Your task to perform on an android device: change text size in settings app Image 0: 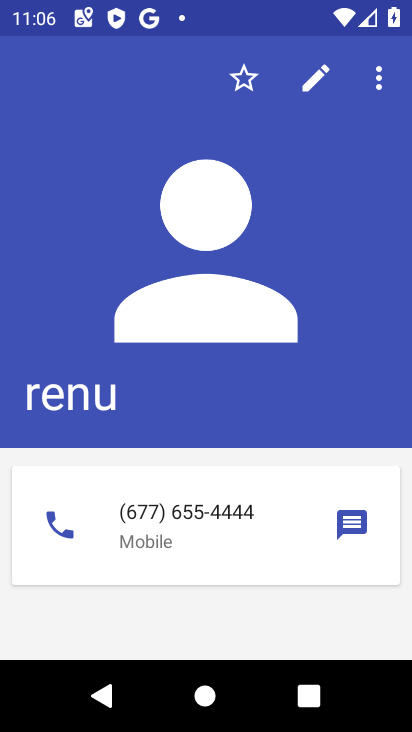
Step 0: press home button
Your task to perform on an android device: change text size in settings app Image 1: 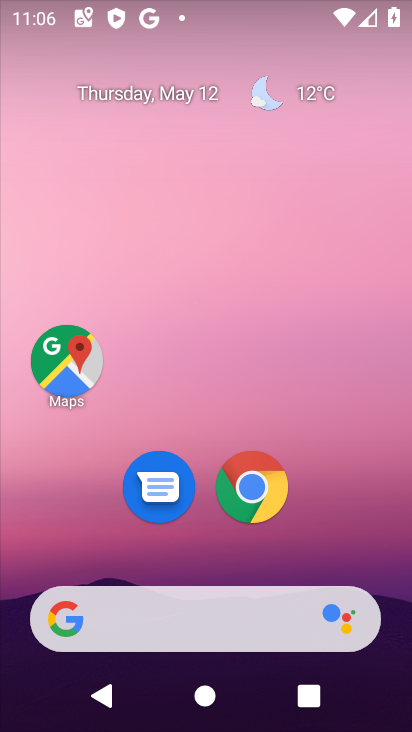
Step 1: drag from (389, 558) to (270, 27)
Your task to perform on an android device: change text size in settings app Image 2: 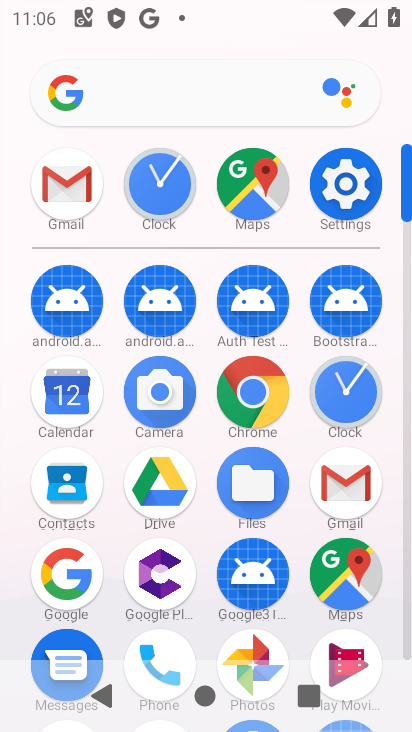
Step 2: click (352, 187)
Your task to perform on an android device: change text size in settings app Image 3: 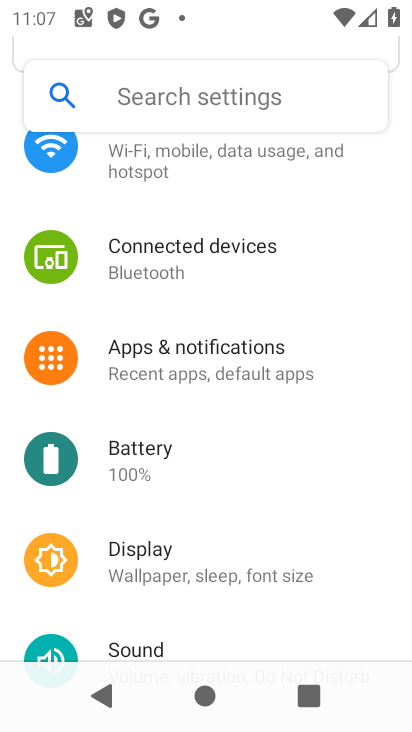
Step 3: click (132, 556)
Your task to perform on an android device: change text size in settings app Image 4: 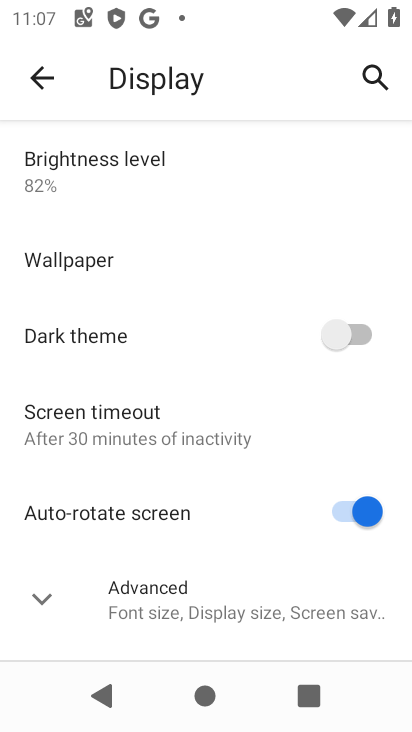
Step 4: drag from (132, 556) to (156, 156)
Your task to perform on an android device: change text size in settings app Image 5: 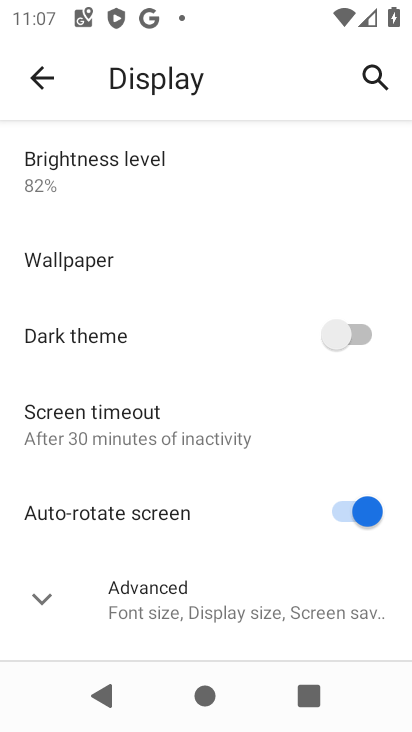
Step 5: click (40, 608)
Your task to perform on an android device: change text size in settings app Image 6: 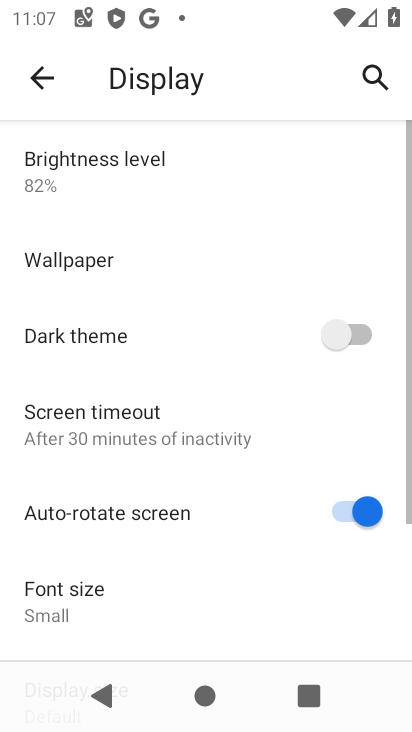
Step 6: drag from (112, 594) to (150, 318)
Your task to perform on an android device: change text size in settings app Image 7: 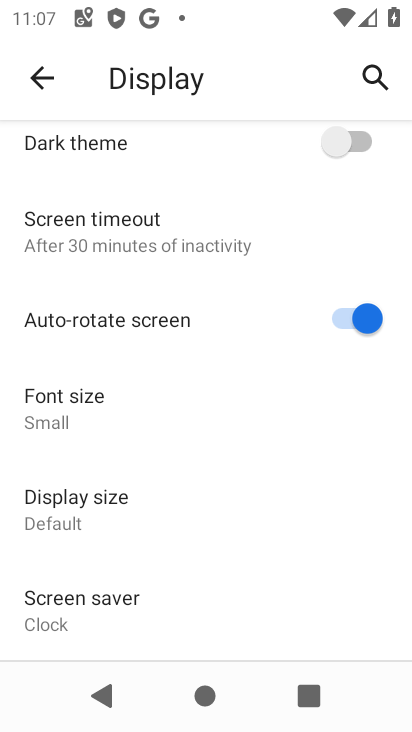
Step 7: click (60, 409)
Your task to perform on an android device: change text size in settings app Image 8: 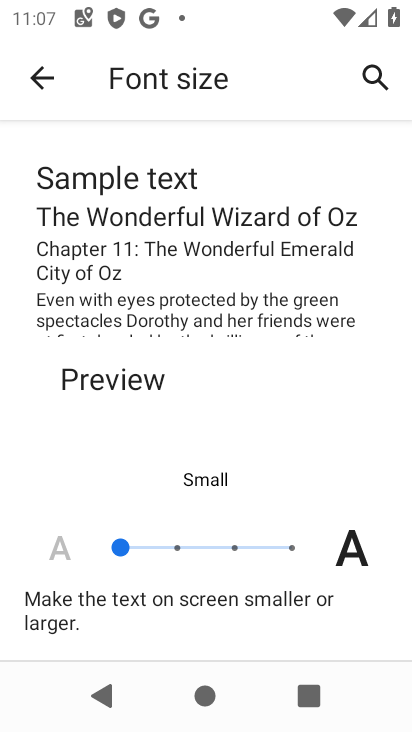
Step 8: click (172, 546)
Your task to perform on an android device: change text size in settings app Image 9: 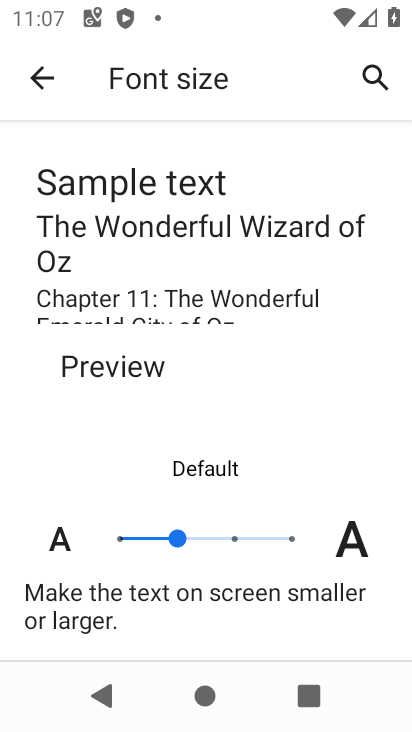
Step 9: task complete